Your task to perform on an android device: Open Google Chrome Image 0: 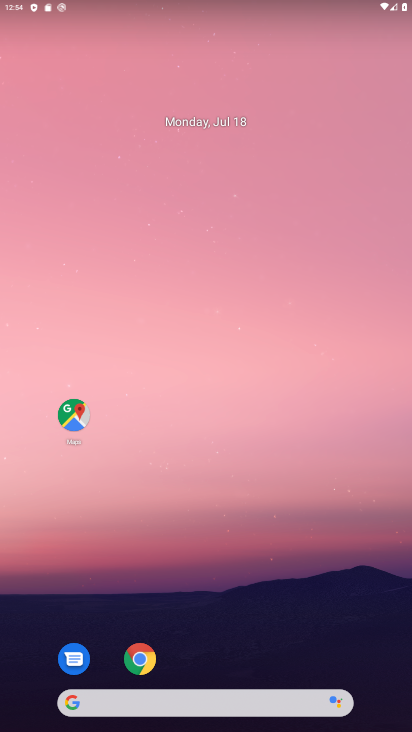
Step 0: click (143, 659)
Your task to perform on an android device: Open Google Chrome Image 1: 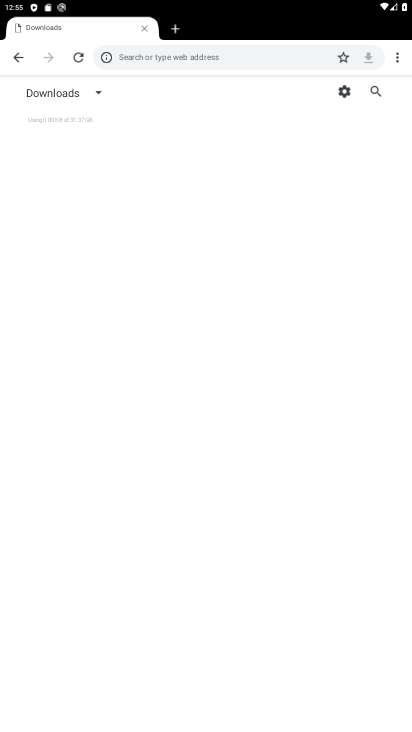
Step 1: task complete